Your task to perform on an android device: turn smart compose on in the gmail app Image 0: 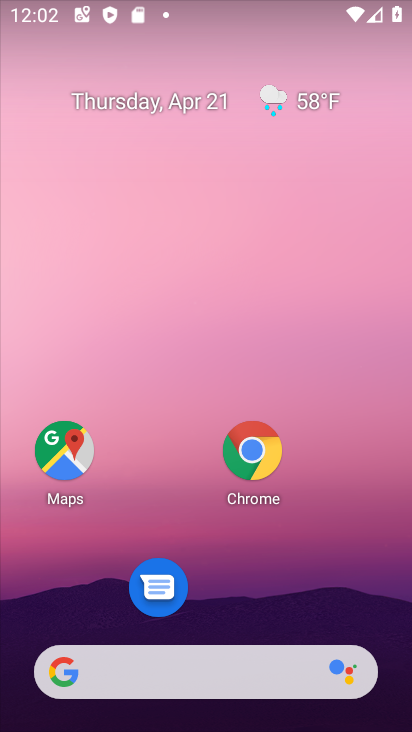
Step 0: drag from (226, 614) to (195, 31)
Your task to perform on an android device: turn smart compose on in the gmail app Image 1: 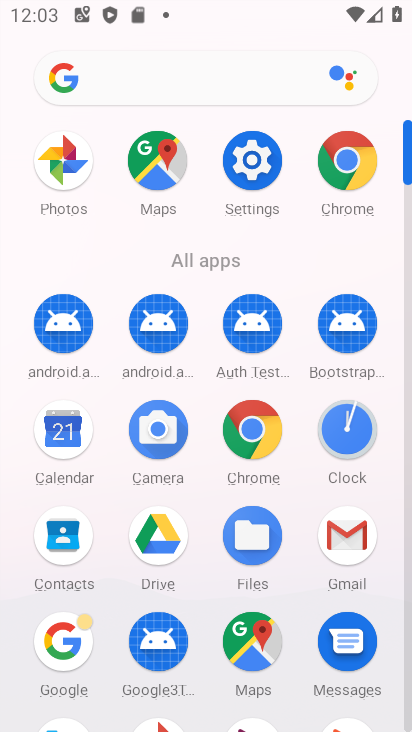
Step 1: click (337, 549)
Your task to perform on an android device: turn smart compose on in the gmail app Image 2: 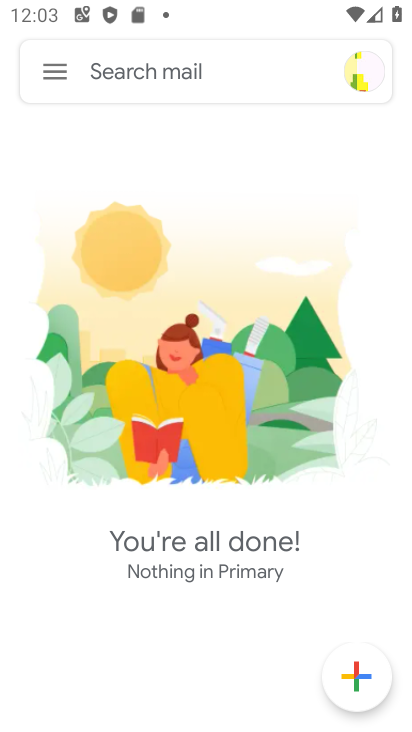
Step 2: click (57, 80)
Your task to perform on an android device: turn smart compose on in the gmail app Image 3: 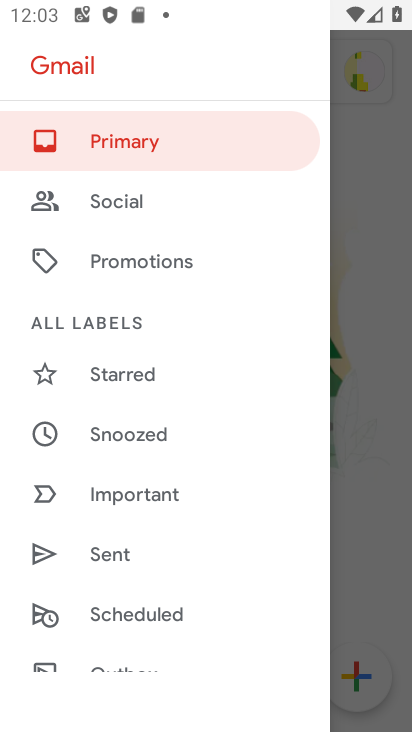
Step 3: drag from (180, 578) to (166, 164)
Your task to perform on an android device: turn smart compose on in the gmail app Image 4: 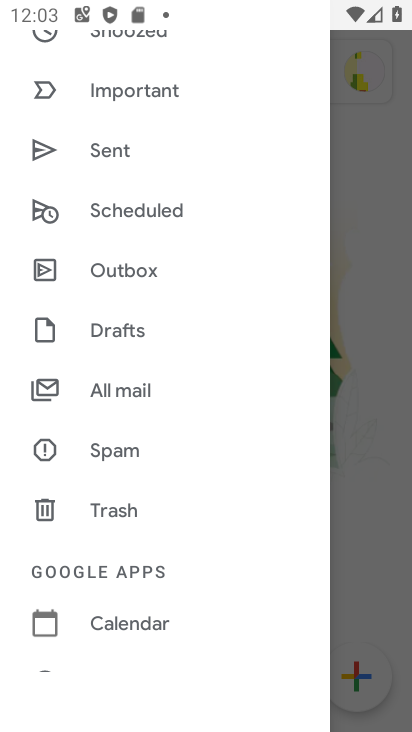
Step 4: drag from (171, 580) to (184, 3)
Your task to perform on an android device: turn smart compose on in the gmail app Image 5: 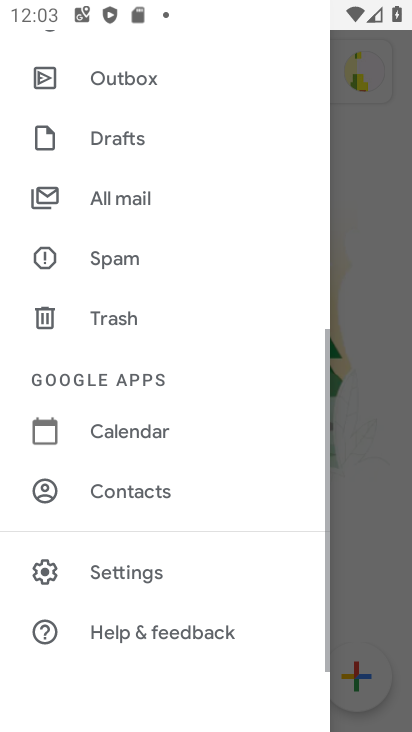
Step 5: click (153, 571)
Your task to perform on an android device: turn smart compose on in the gmail app Image 6: 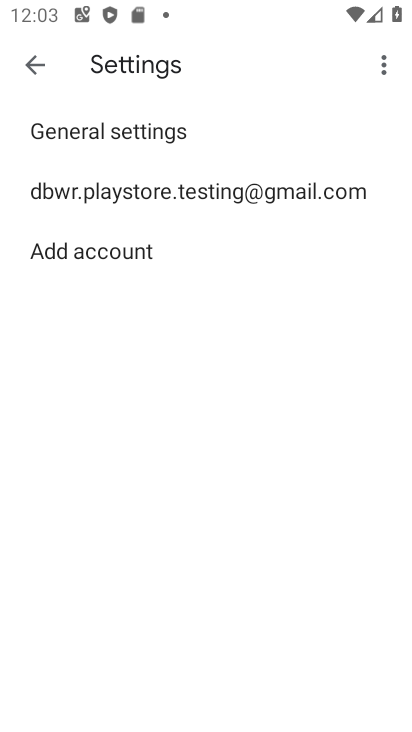
Step 6: click (224, 195)
Your task to perform on an android device: turn smart compose on in the gmail app Image 7: 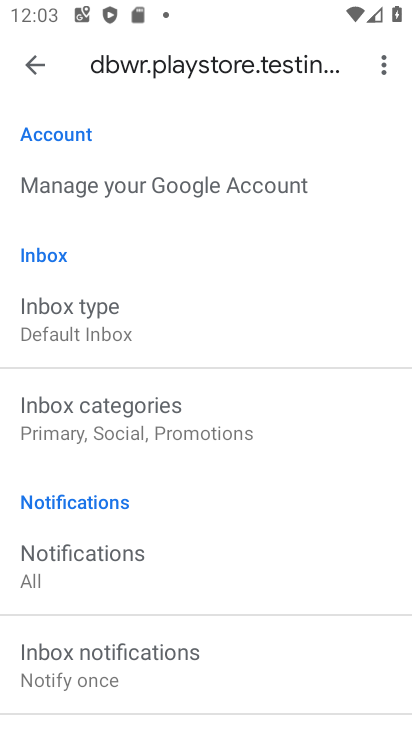
Step 7: task complete